Your task to perform on an android device: visit the assistant section in the google photos Image 0: 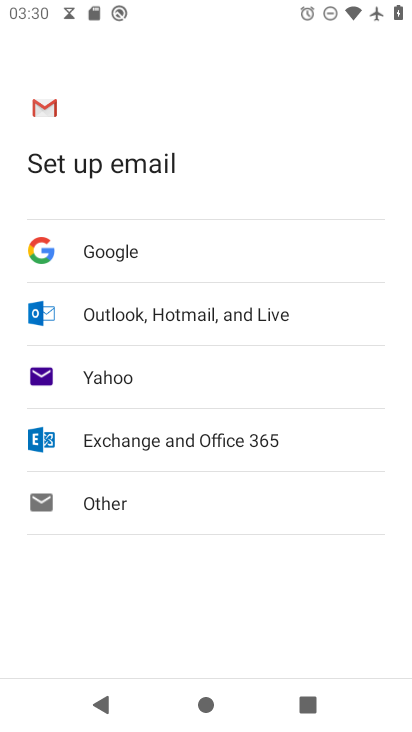
Step 0: press home button
Your task to perform on an android device: visit the assistant section in the google photos Image 1: 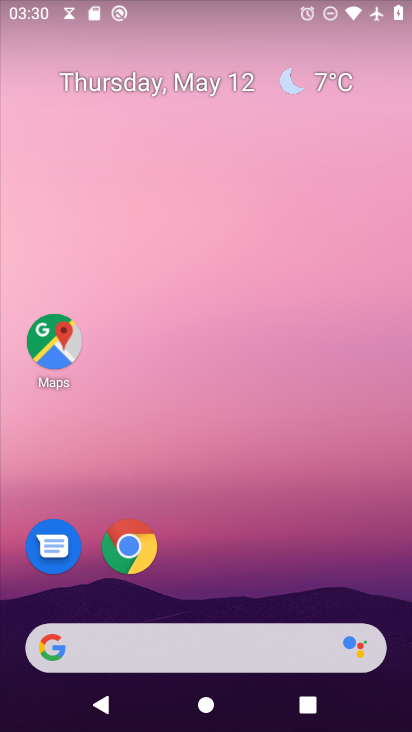
Step 1: drag from (110, 648) to (297, 87)
Your task to perform on an android device: visit the assistant section in the google photos Image 2: 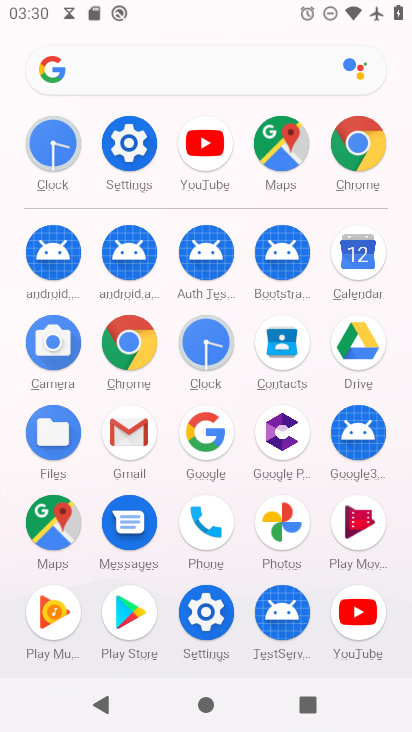
Step 2: click (295, 526)
Your task to perform on an android device: visit the assistant section in the google photos Image 3: 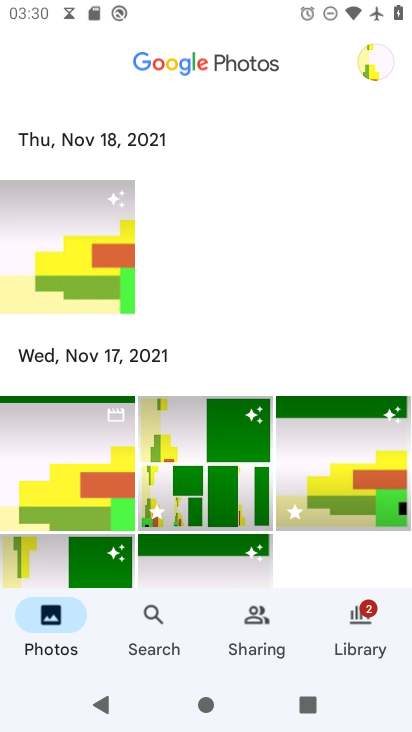
Step 3: click (166, 652)
Your task to perform on an android device: visit the assistant section in the google photos Image 4: 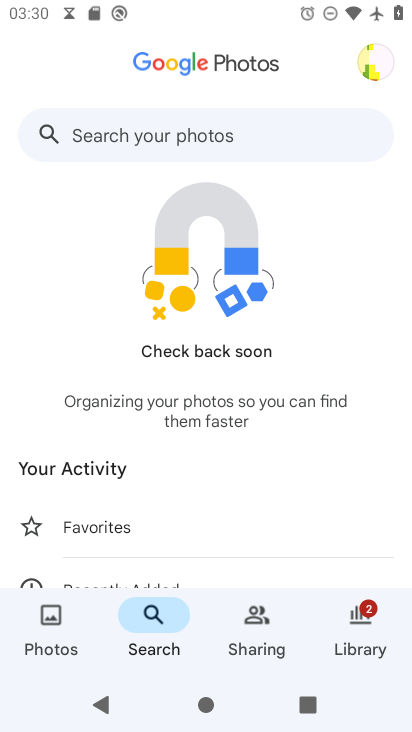
Step 4: task complete